Your task to perform on an android device: Go to wifi settings Image 0: 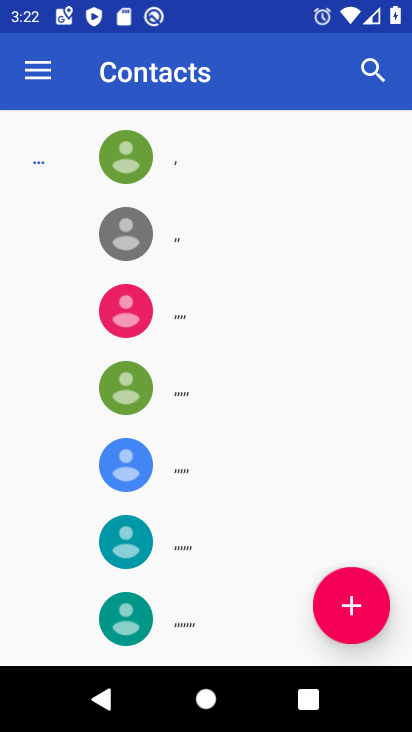
Step 0: press home button
Your task to perform on an android device: Go to wifi settings Image 1: 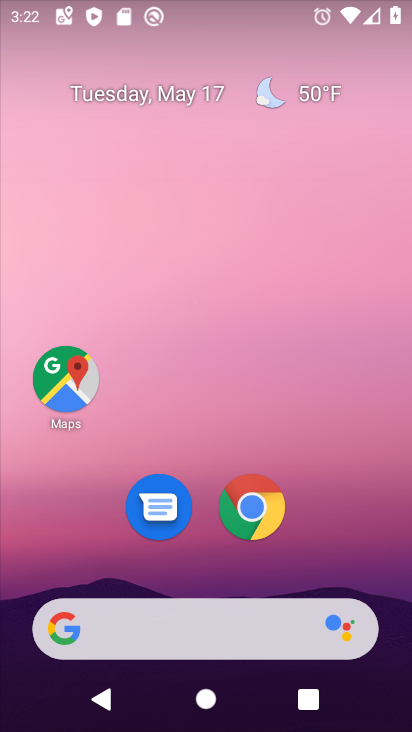
Step 1: drag from (303, 394) to (219, 88)
Your task to perform on an android device: Go to wifi settings Image 2: 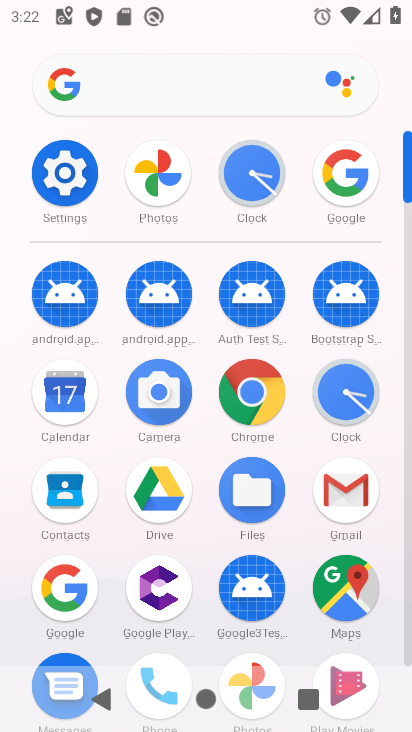
Step 2: click (68, 175)
Your task to perform on an android device: Go to wifi settings Image 3: 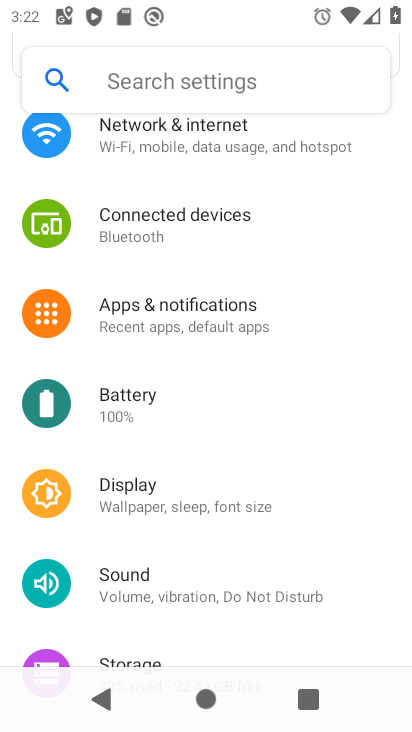
Step 3: drag from (217, 183) to (226, 482)
Your task to perform on an android device: Go to wifi settings Image 4: 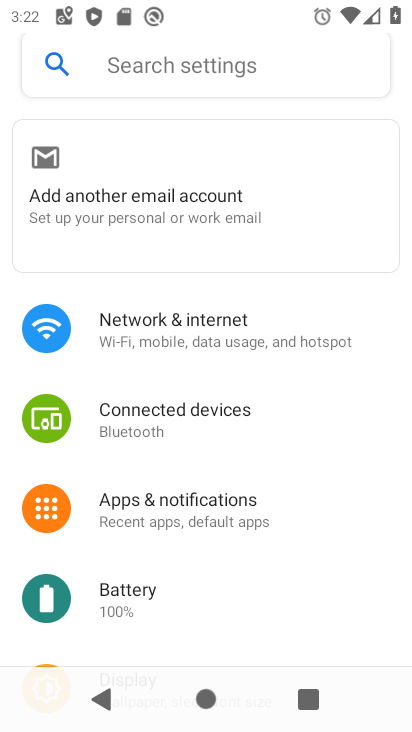
Step 4: click (207, 333)
Your task to perform on an android device: Go to wifi settings Image 5: 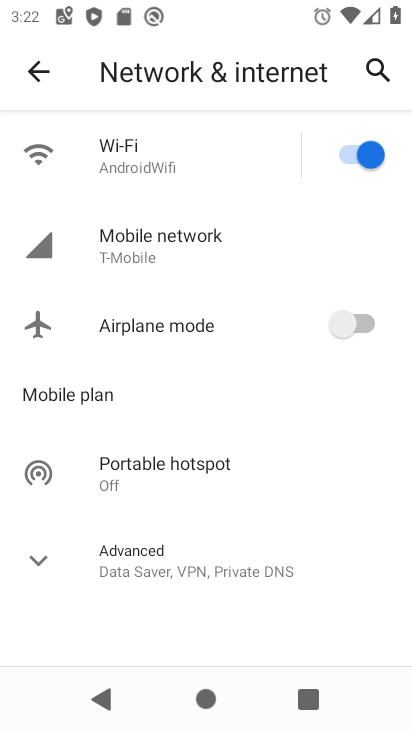
Step 5: click (188, 152)
Your task to perform on an android device: Go to wifi settings Image 6: 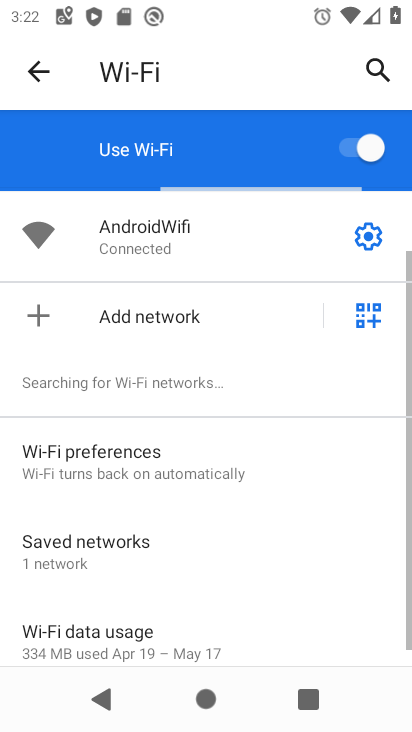
Step 6: task complete